Your task to perform on an android device: Open Android settings Image 0: 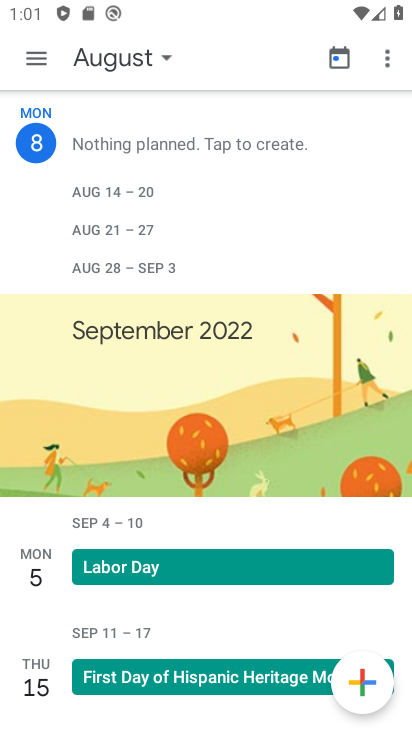
Step 0: press home button
Your task to perform on an android device: Open Android settings Image 1: 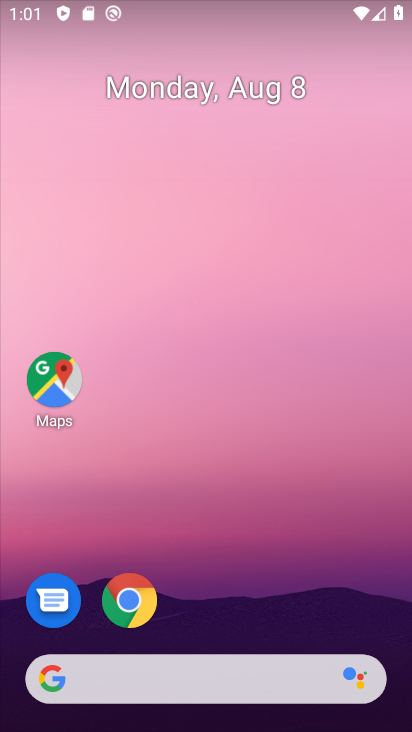
Step 1: drag from (238, 621) to (285, 46)
Your task to perform on an android device: Open Android settings Image 2: 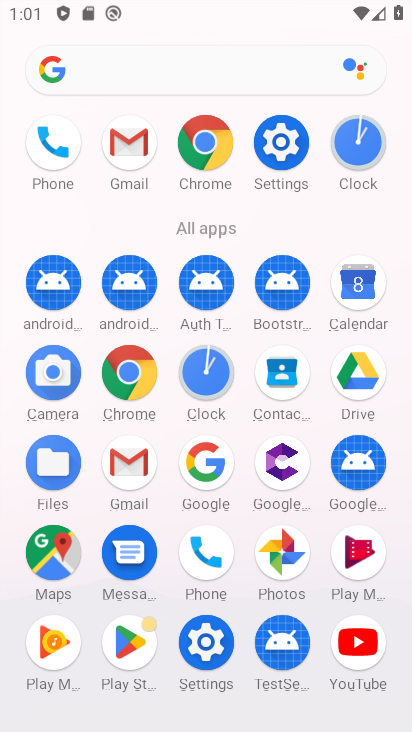
Step 2: click (214, 642)
Your task to perform on an android device: Open Android settings Image 3: 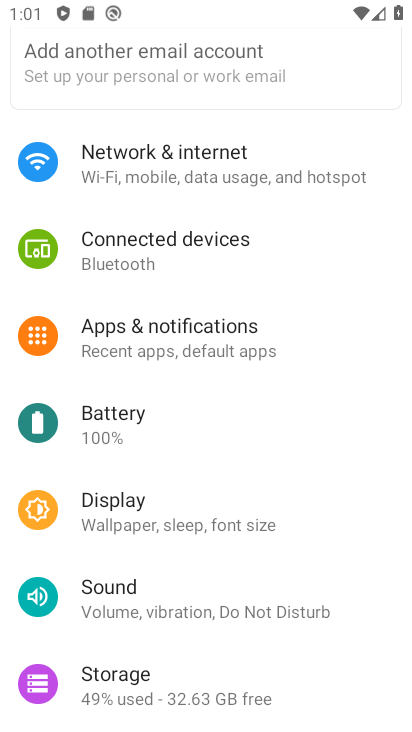
Step 3: drag from (226, 666) to (199, 66)
Your task to perform on an android device: Open Android settings Image 4: 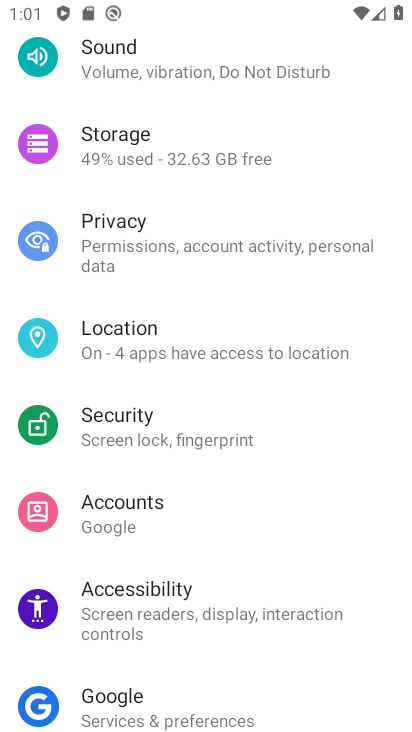
Step 4: drag from (132, 585) to (252, 12)
Your task to perform on an android device: Open Android settings Image 5: 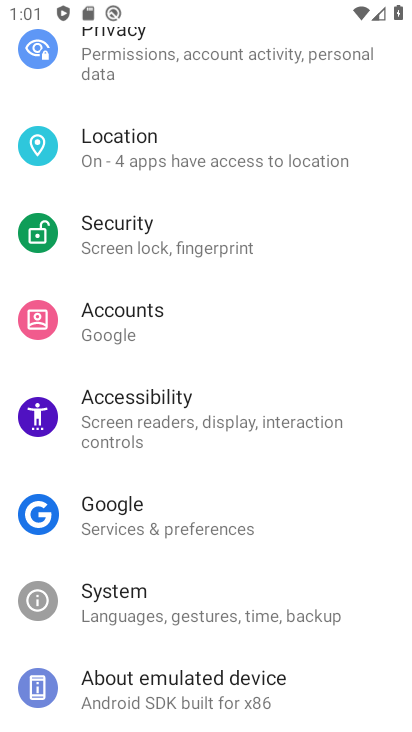
Step 5: click (189, 698)
Your task to perform on an android device: Open Android settings Image 6: 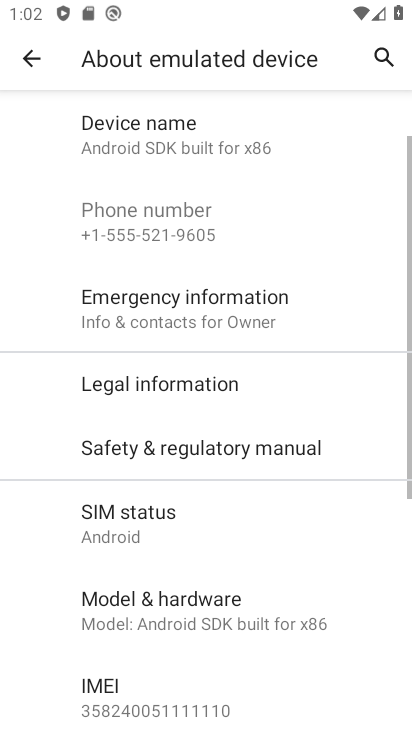
Step 6: drag from (213, 525) to (198, 179)
Your task to perform on an android device: Open Android settings Image 7: 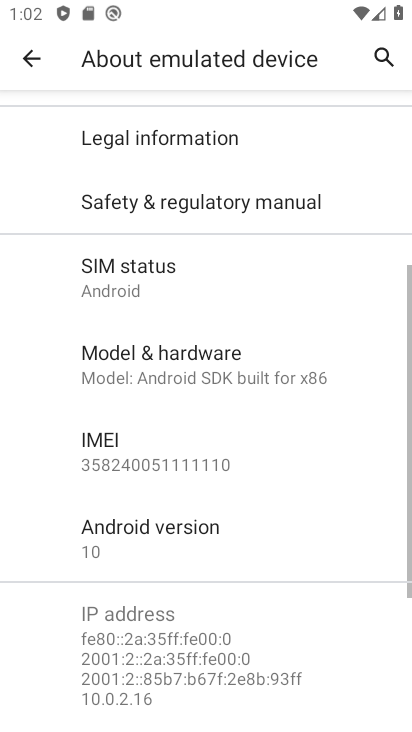
Step 7: drag from (164, 656) to (168, 200)
Your task to perform on an android device: Open Android settings Image 8: 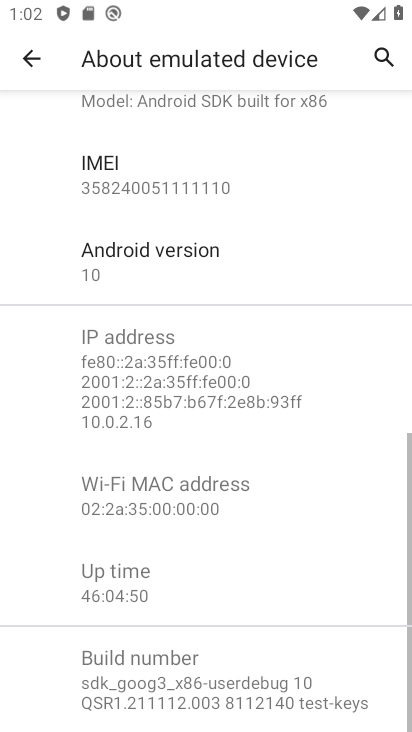
Step 8: drag from (253, 538) to (215, 148)
Your task to perform on an android device: Open Android settings Image 9: 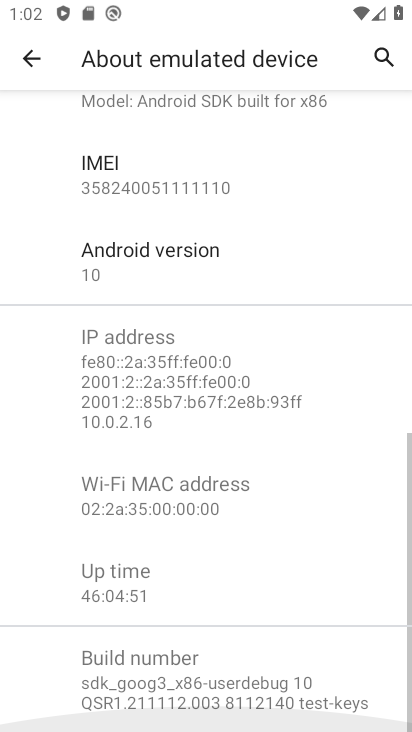
Step 9: click (154, 253)
Your task to perform on an android device: Open Android settings Image 10: 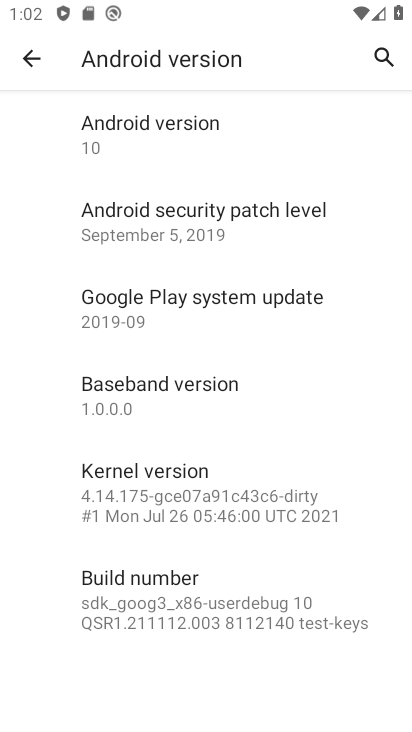
Step 10: click (182, 130)
Your task to perform on an android device: Open Android settings Image 11: 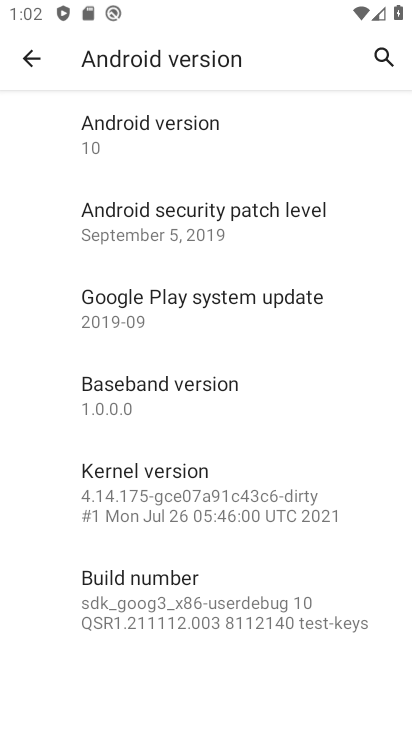
Step 11: task complete